Your task to perform on an android device: search for starred emails in the gmail app Image 0: 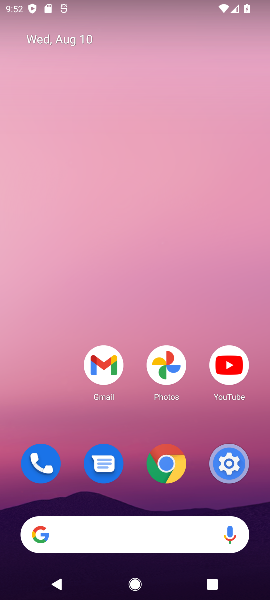
Step 0: click (98, 369)
Your task to perform on an android device: search for starred emails in the gmail app Image 1: 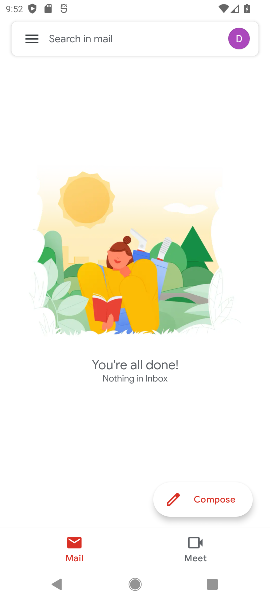
Step 1: click (29, 45)
Your task to perform on an android device: search for starred emails in the gmail app Image 2: 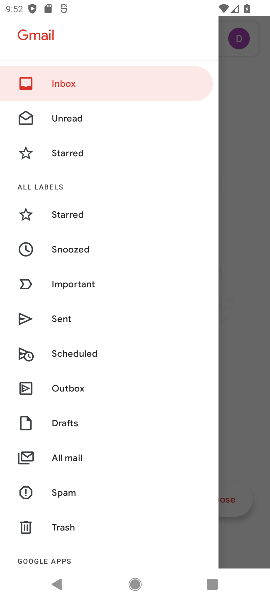
Step 2: click (70, 219)
Your task to perform on an android device: search for starred emails in the gmail app Image 3: 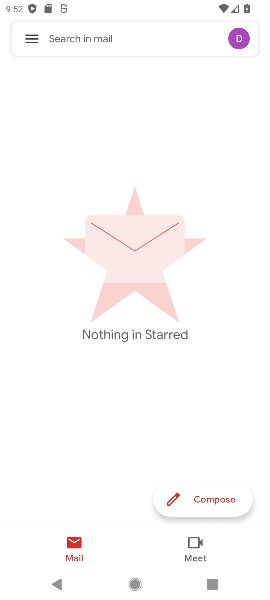
Step 3: task complete